Your task to perform on an android device: Check the news Image 0: 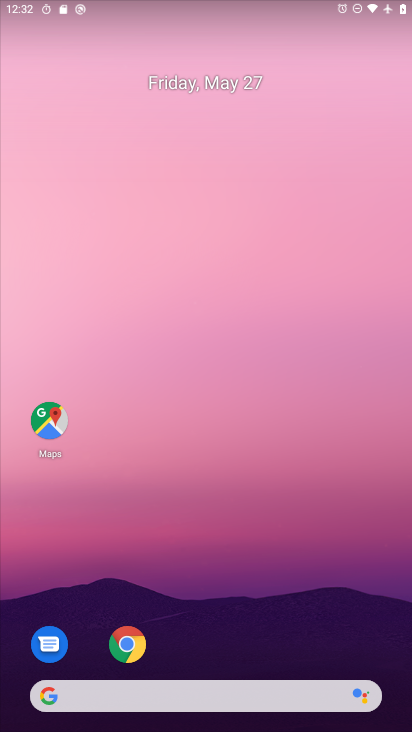
Step 0: drag from (225, 654) to (243, 199)
Your task to perform on an android device: Check the news Image 1: 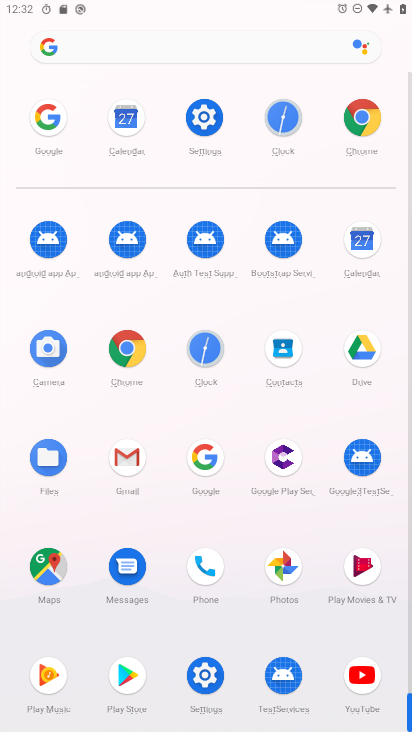
Step 1: click (196, 477)
Your task to perform on an android device: Check the news Image 2: 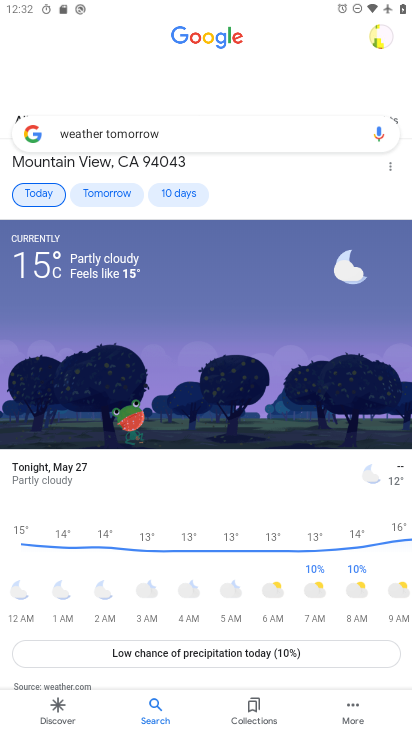
Step 2: click (309, 131)
Your task to perform on an android device: Check the news Image 3: 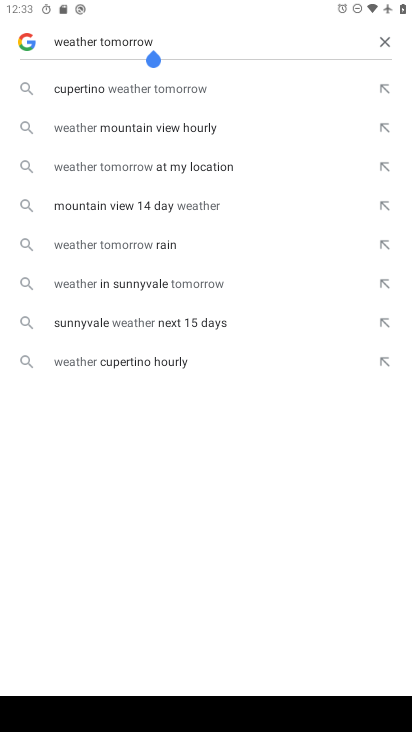
Step 3: click (383, 37)
Your task to perform on an android device: Check the news Image 4: 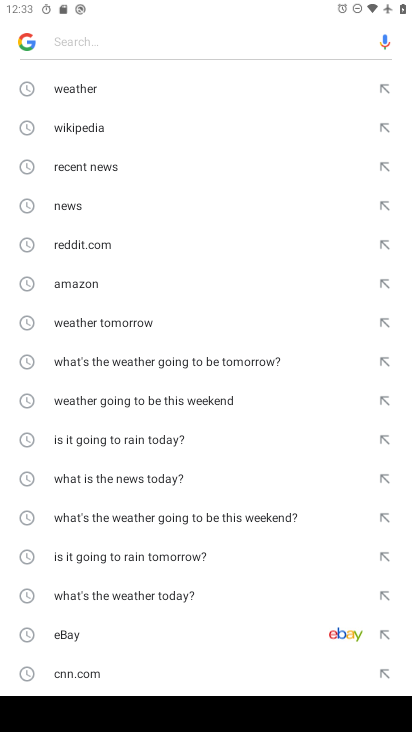
Step 4: click (72, 200)
Your task to perform on an android device: Check the news Image 5: 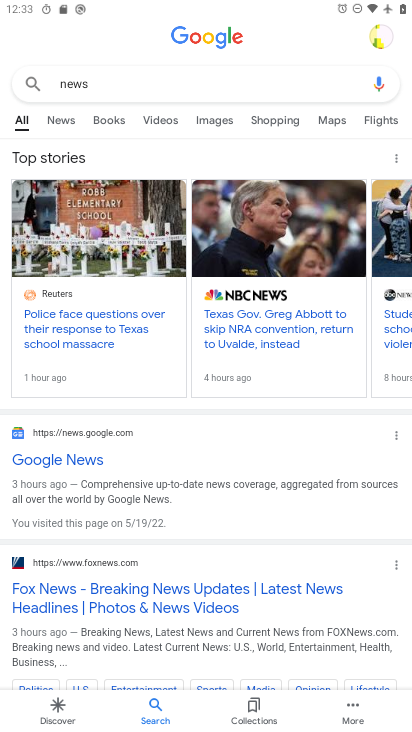
Step 5: click (56, 120)
Your task to perform on an android device: Check the news Image 6: 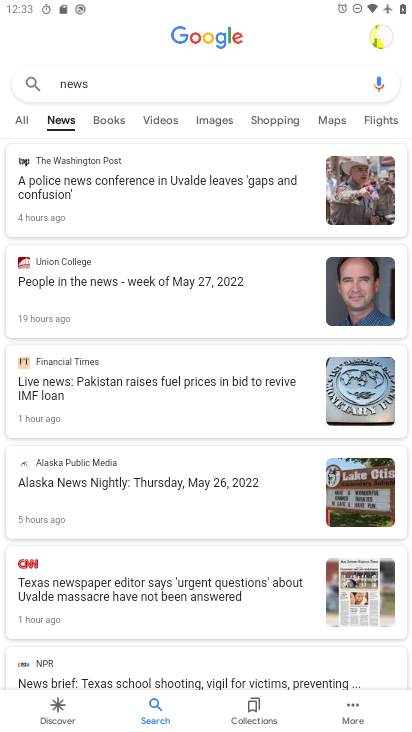
Step 6: task complete